Your task to perform on an android device: Go to calendar. Show me events next week Image 0: 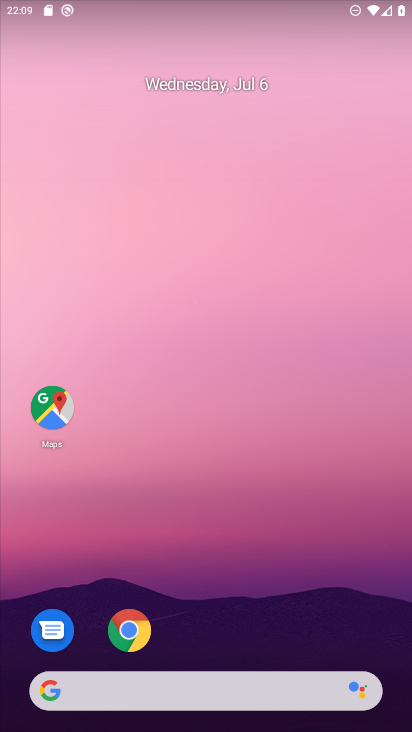
Step 0: drag from (196, 633) to (133, 0)
Your task to perform on an android device: Go to calendar. Show me events next week Image 1: 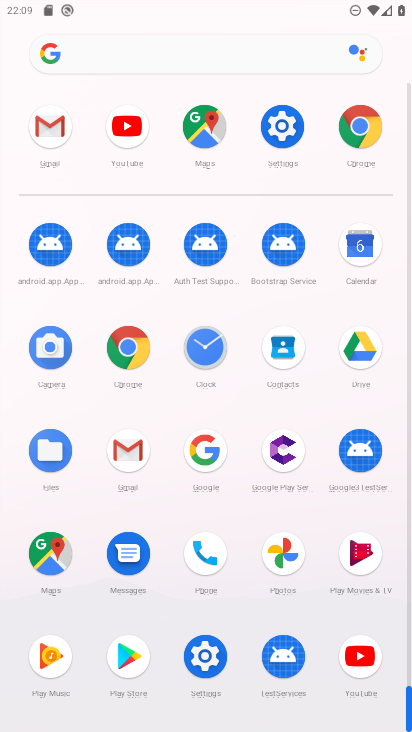
Step 1: click (365, 248)
Your task to perform on an android device: Go to calendar. Show me events next week Image 2: 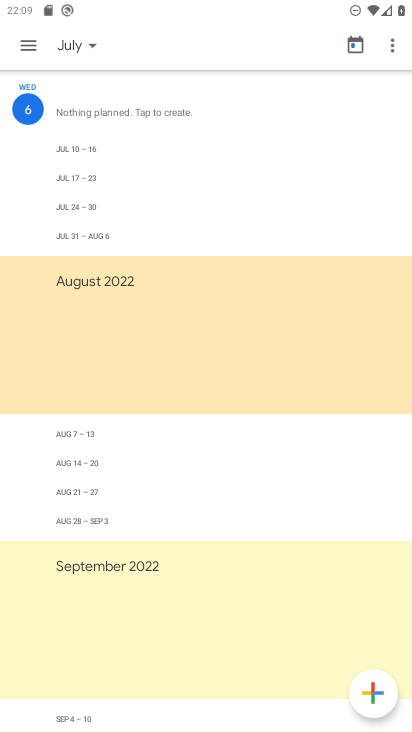
Step 2: click (16, 42)
Your task to perform on an android device: Go to calendar. Show me events next week Image 3: 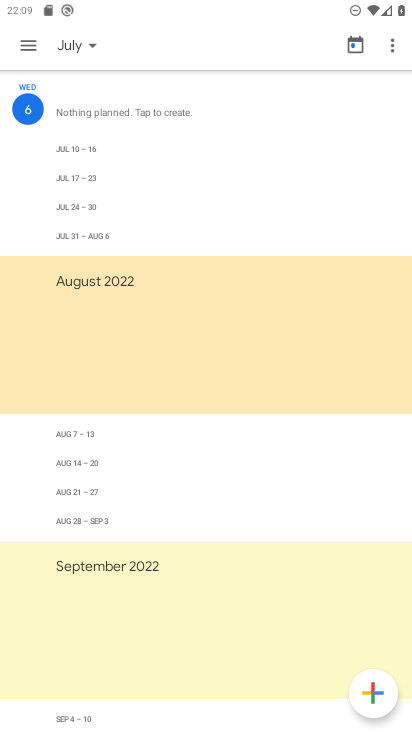
Step 3: click (85, 47)
Your task to perform on an android device: Go to calendar. Show me events next week Image 4: 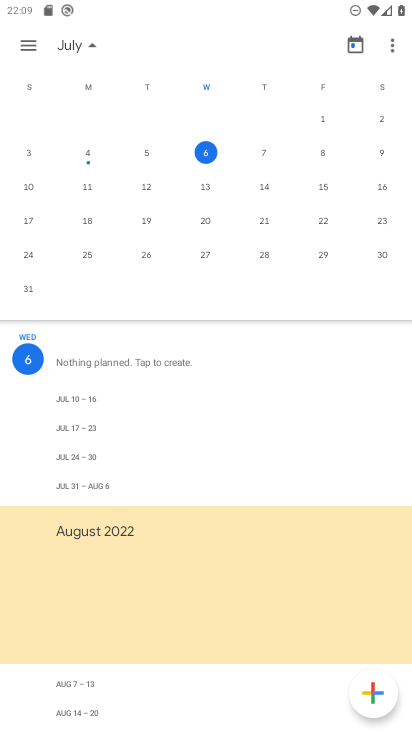
Step 4: click (36, 47)
Your task to perform on an android device: Go to calendar. Show me events next week Image 5: 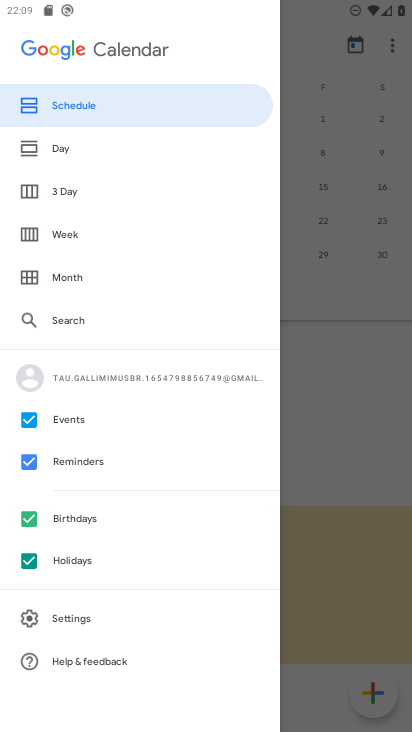
Step 5: drag from (124, 608) to (197, 568)
Your task to perform on an android device: Go to calendar. Show me events next week Image 6: 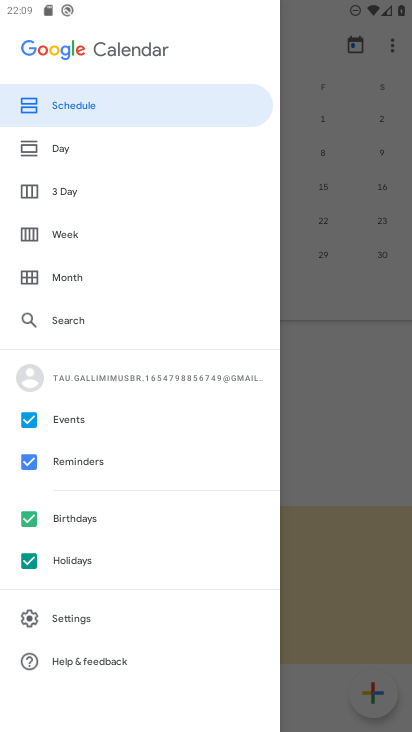
Step 6: click (68, 127)
Your task to perform on an android device: Go to calendar. Show me events next week Image 7: 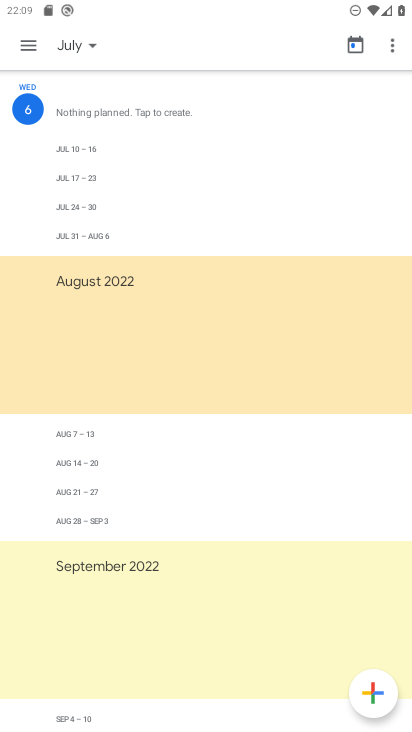
Step 7: drag from (211, 546) to (198, 97)
Your task to perform on an android device: Go to calendar. Show me events next week Image 8: 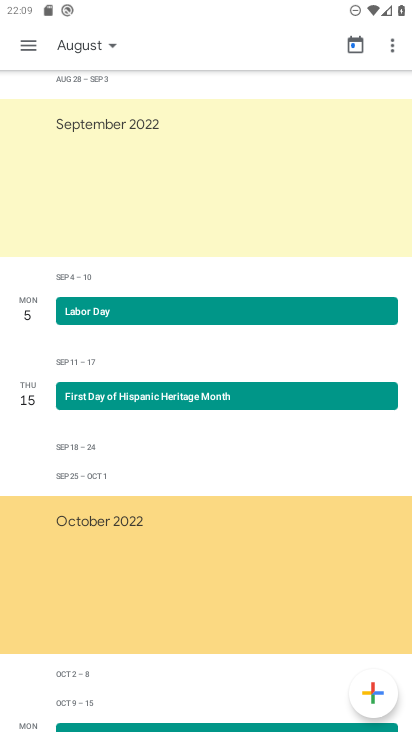
Step 8: drag from (203, 97) to (275, 703)
Your task to perform on an android device: Go to calendar. Show me events next week Image 9: 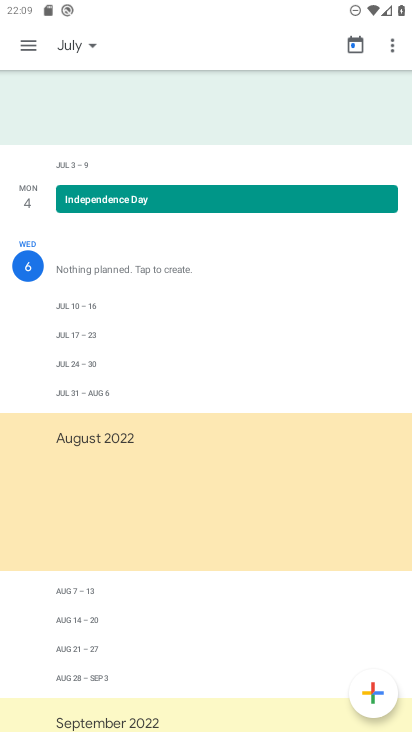
Step 9: click (12, 50)
Your task to perform on an android device: Go to calendar. Show me events next week Image 10: 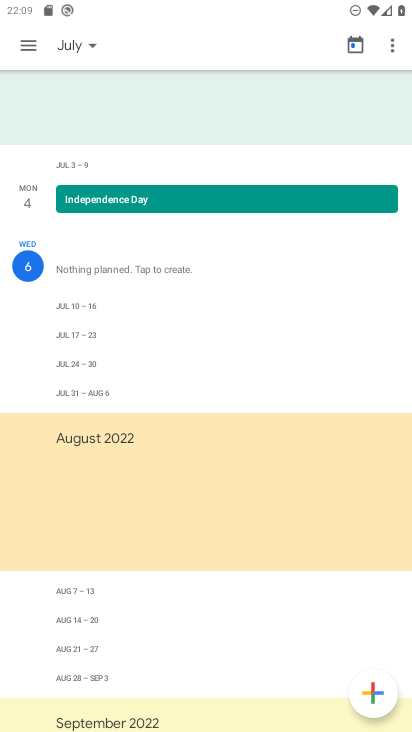
Step 10: click (358, 45)
Your task to perform on an android device: Go to calendar. Show me events next week Image 11: 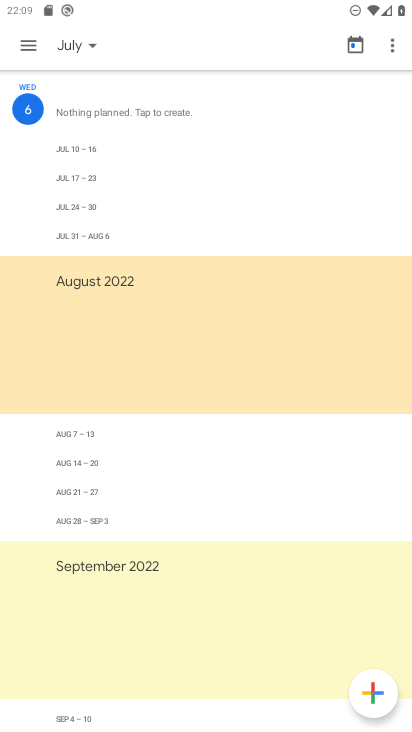
Step 11: click (358, 45)
Your task to perform on an android device: Go to calendar. Show me events next week Image 12: 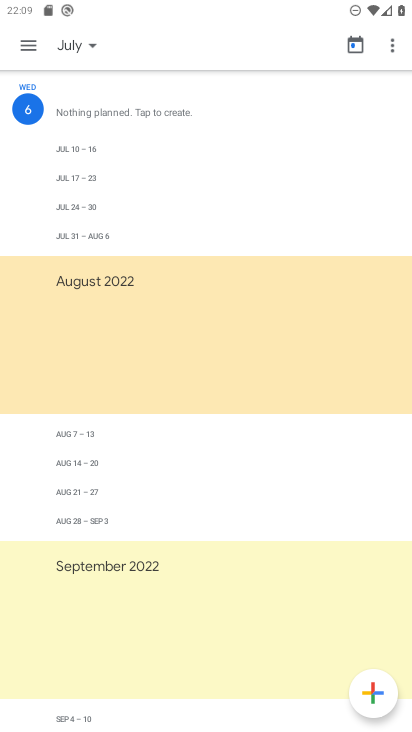
Step 12: click (19, 55)
Your task to perform on an android device: Go to calendar. Show me events next week Image 13: 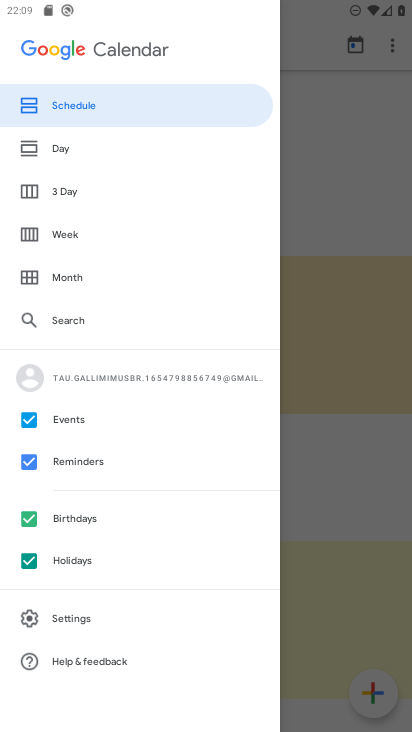
Step 13: click (403, 211)
Your task to perform on an android device: Go to calendar. Show me events next week Image 14: 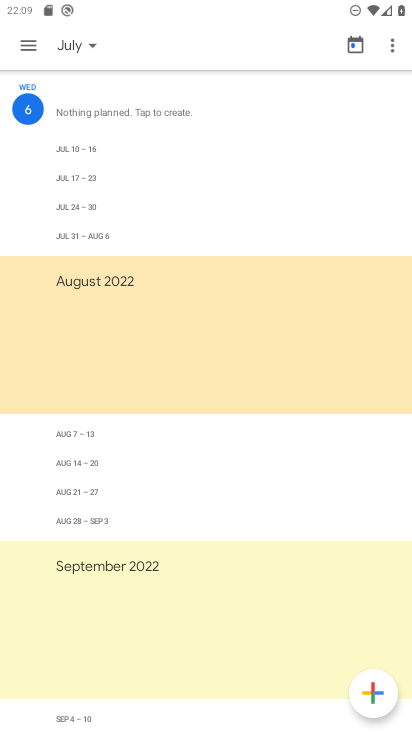
Step 14: task complete